Your task to perform on an android device: turn off location Image 0: 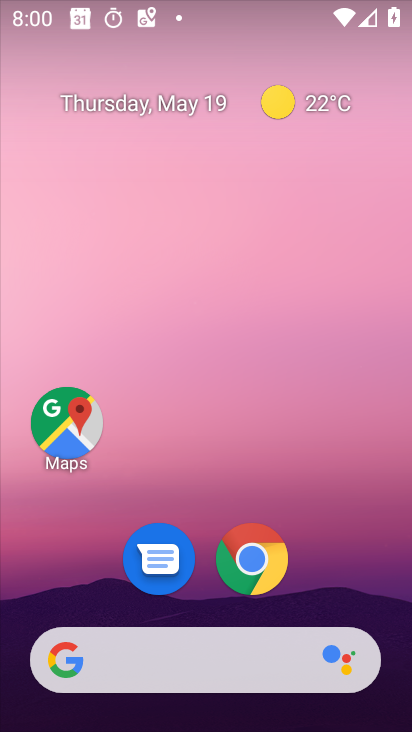
Step 0: drag from (362, 602) to (345, 5)
Your task to perform on an android device: turn off location Image 1: 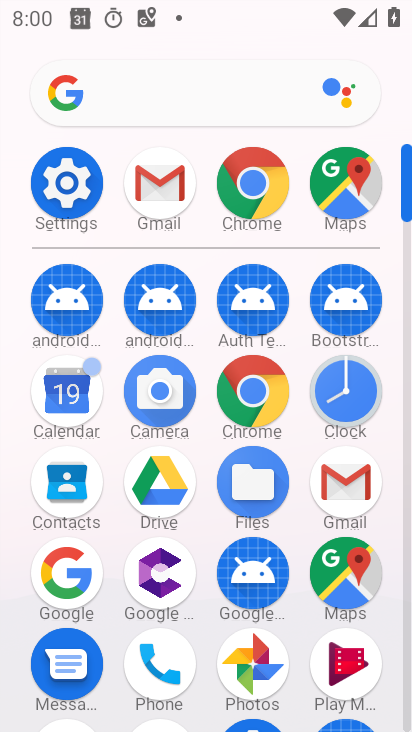
Step 1: click (67, 187)
Your task to perform on an android device: turn off location Image 2: 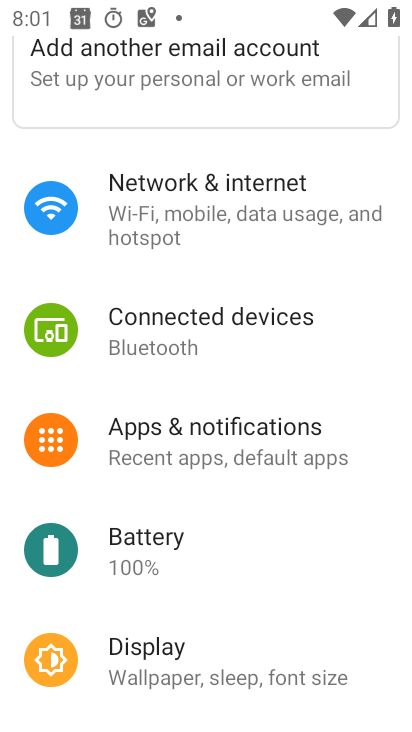
Step 2: drag from (172, 519) to (216, 329)
Your task to perform on an android device: turn off location Image 3: 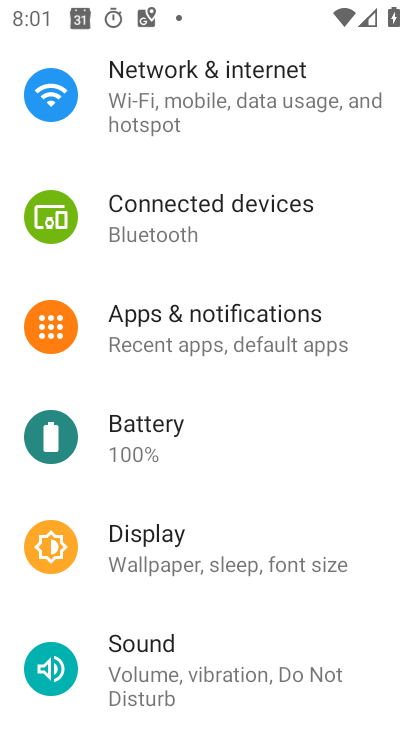
Step 3: drag from (165, 573) to (170, 458)
Your task to perform on an android device: turn off location Image 4: 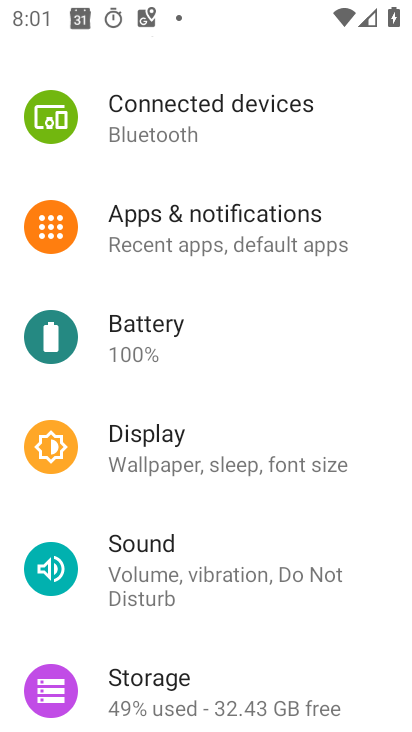
Step 4: drag from (133, 573) to (150, 470)
Your task to perform on an android device: turn off location Image 5: 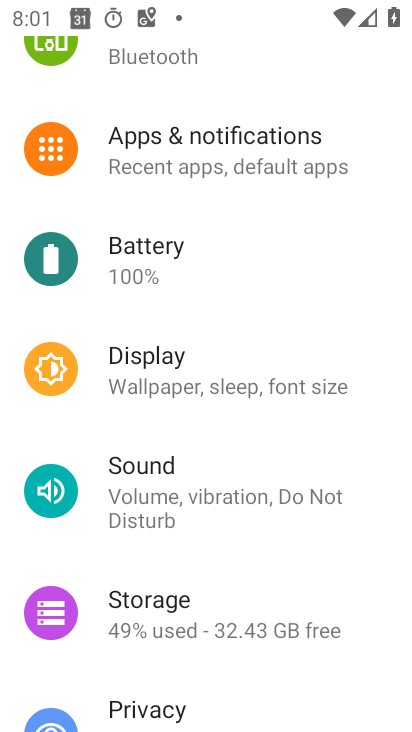
Step 5: drag from (146, 586) to (160, 494)
Your task to perform on an android device: turn off location Image 6: 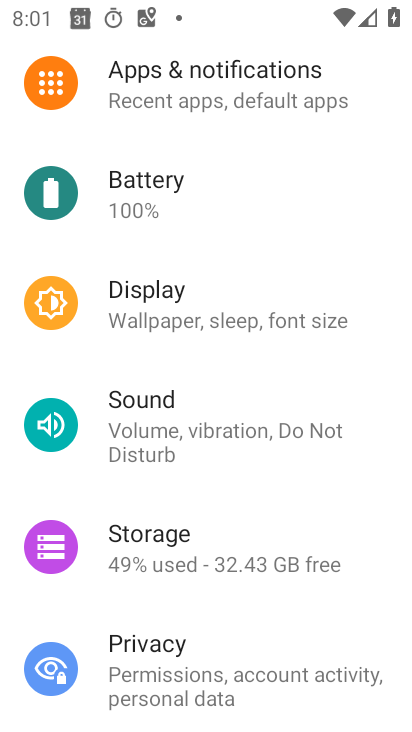
Step 6: drag from (138, 634) to (150, 536)
Your task to perform on an android device: turn off location Image 7: 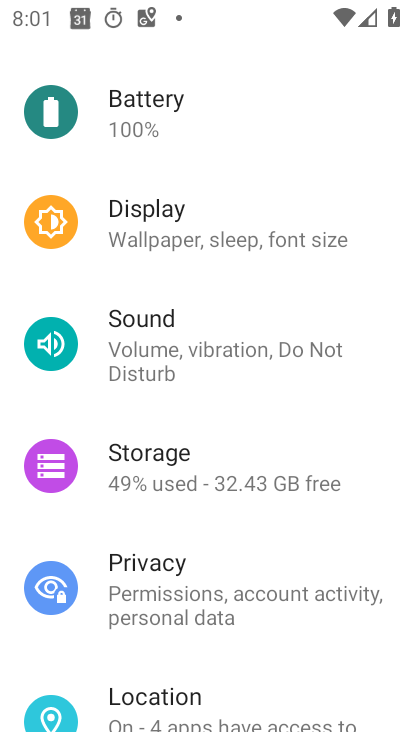
Step 7: click (157, 688)
Your task to perform on an android device: turn off location Image 8: 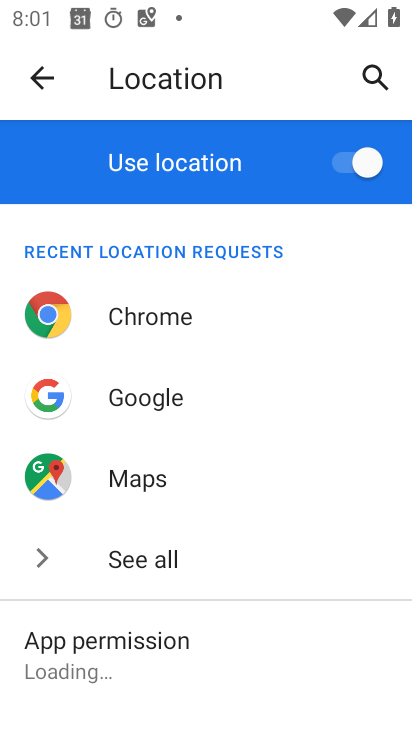
Step 8: click (340, 153)
Your task to perform on an android device: turn off location Image 9: 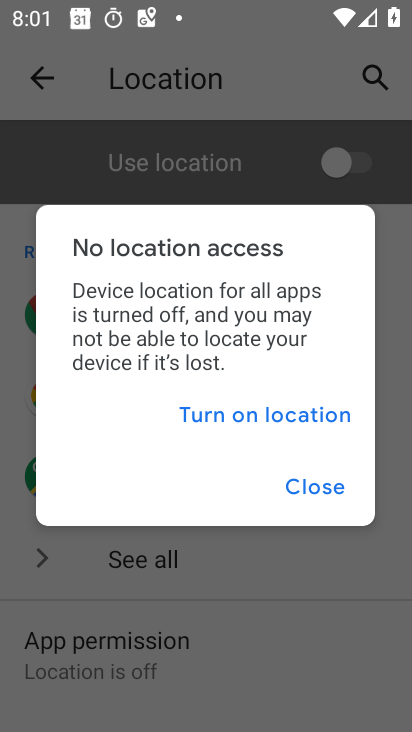
Step 9: task complete